Your task to perform on an android device: Go to CNN.com Image 0: 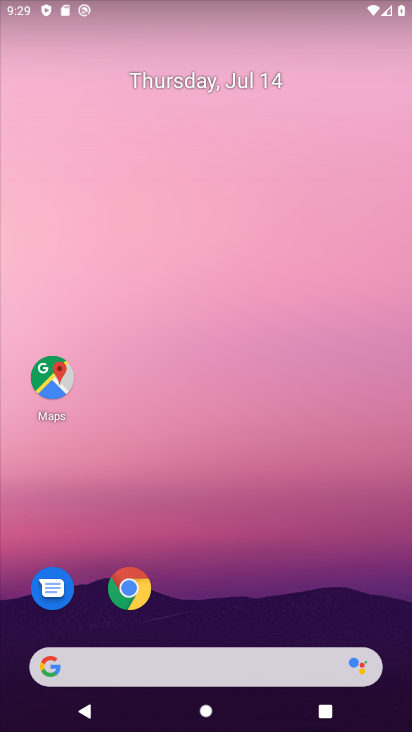
Step 0: click (170, 360)
Your task to perform on an android device: Go to CNN.com Image 1: 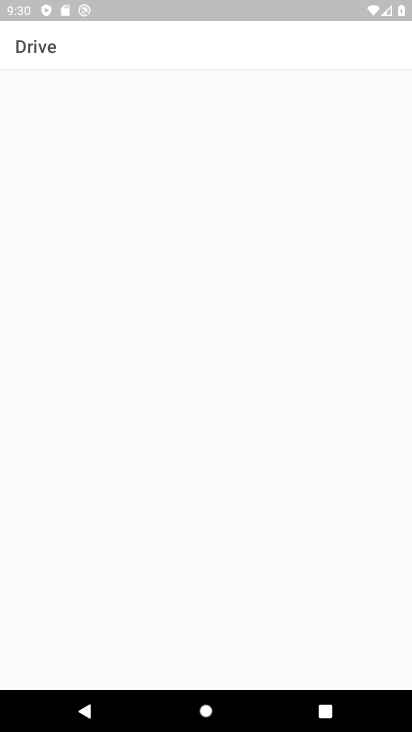
Step 1: press home button
Your task to perform on an android device: Go to CNN.com Image 2: 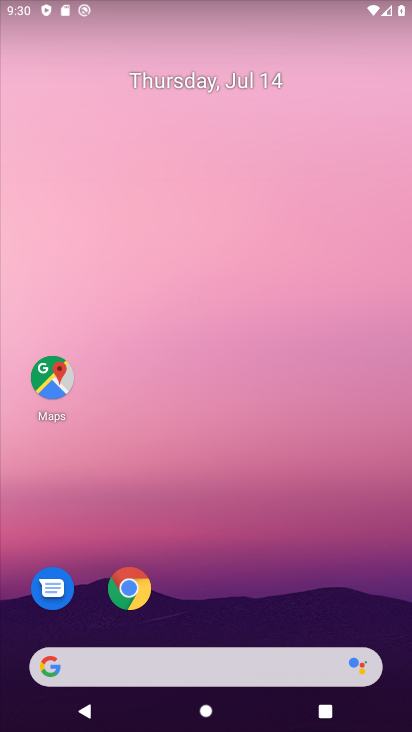
Step 2: drag from (151, 509) to (167, 406)
Your task to perform on an android device: Go to CNN.com Image 3: 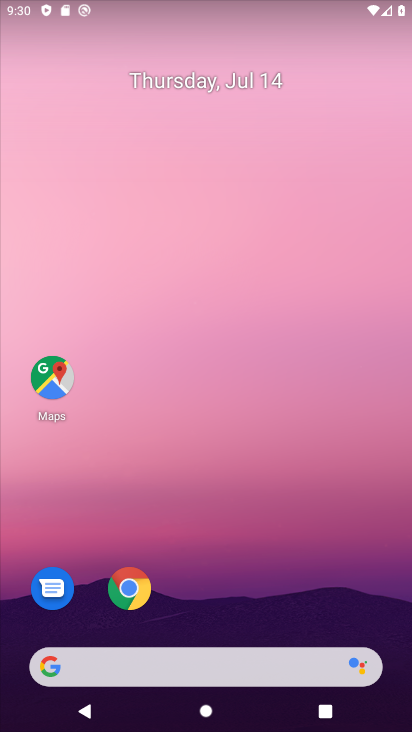
Step 3: drag from (103, 651) to (145, 360)
Your task to perform on an android device: Go to CNN.com Image 4: 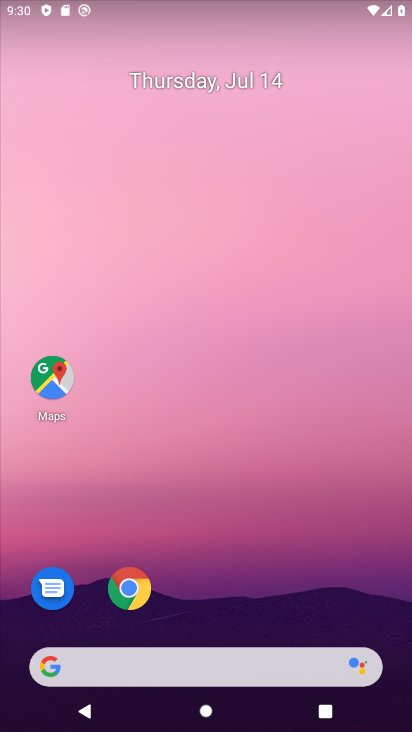
Step 4: drag from (249, 664) to (267, 181)
Your task to perform on an android device: Go to CNN.com Image 5: 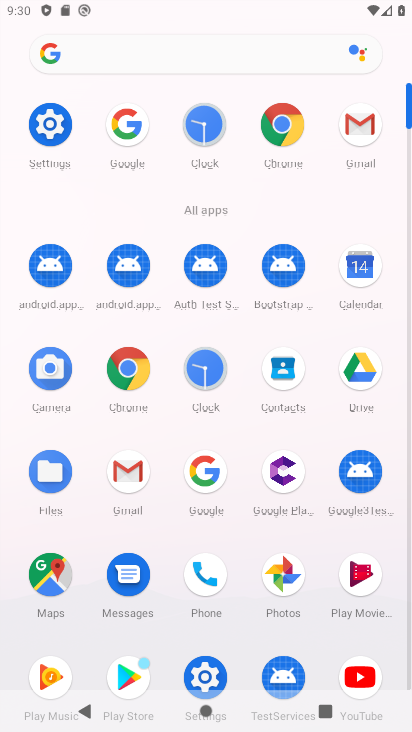
Step 5: click (197, 473)
Your task to perform on an android device: Go to CNN.com Image 6: 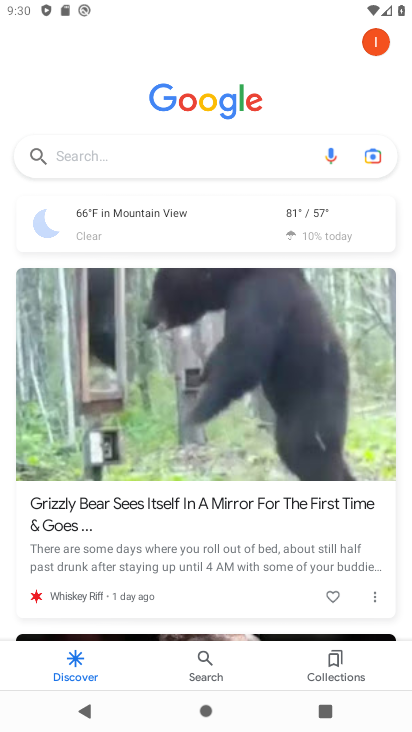
Step 6: click (98, 159)
Your task to perform on an android device: Go to CNN.com Image 7: 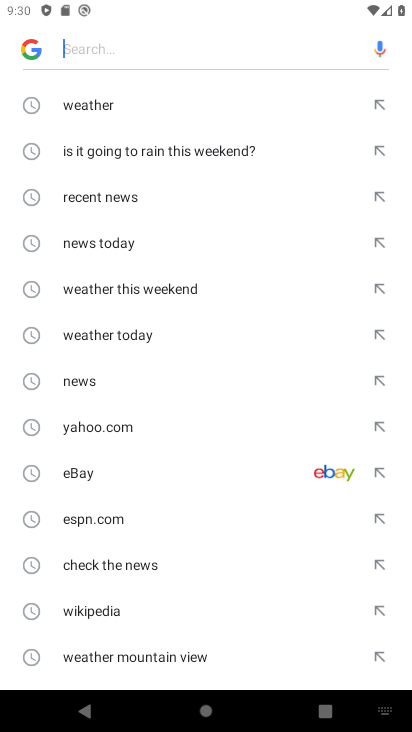
Step 7: drag from (107, 569) to (150, 213)
Your task to perform on an android device: Go to CNN.com Image 8: 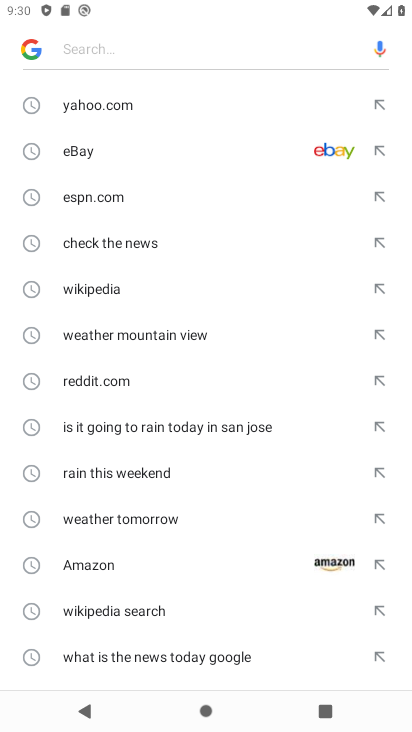
Step 8: drag from (93, 639) to (107, 293)
Your task to perform on an android device: Go to CNN.com Image 9: 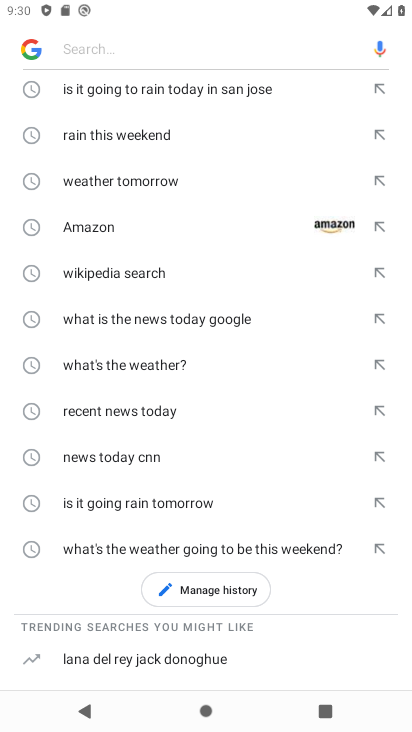
Step 9: drag from (151, 175) to (168, 367)
Your task to perform on an android device: Go to CNN.com Image 10: 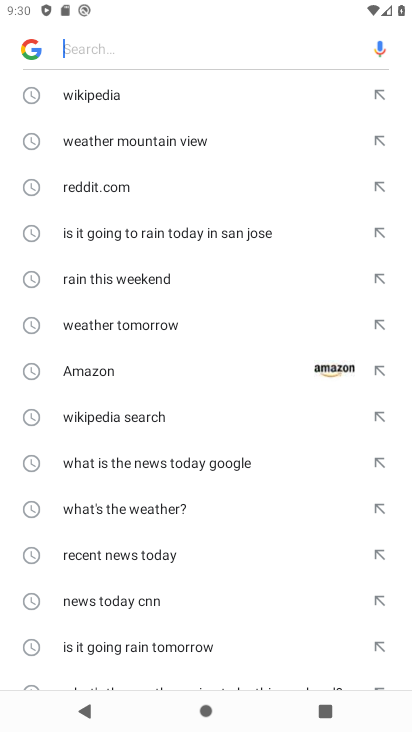
Step 10: drag from (137, 88) to (145, 238)
Your task to perform on an android device: Go to CNN.com Image 11: 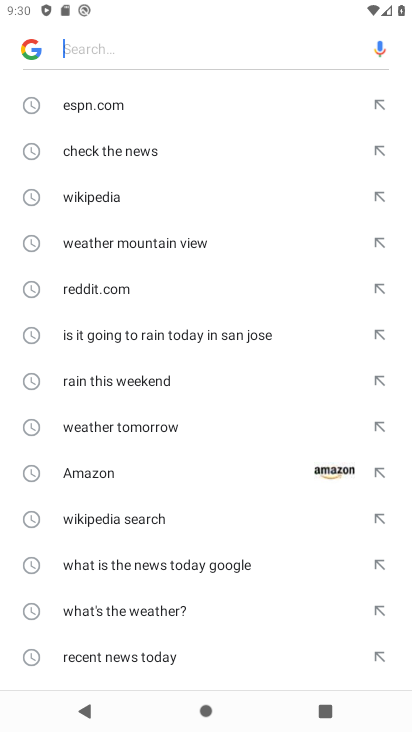
Step 11: type "cnn.com"
Your task to perform on an android device: Go to CNN.com Image 12: 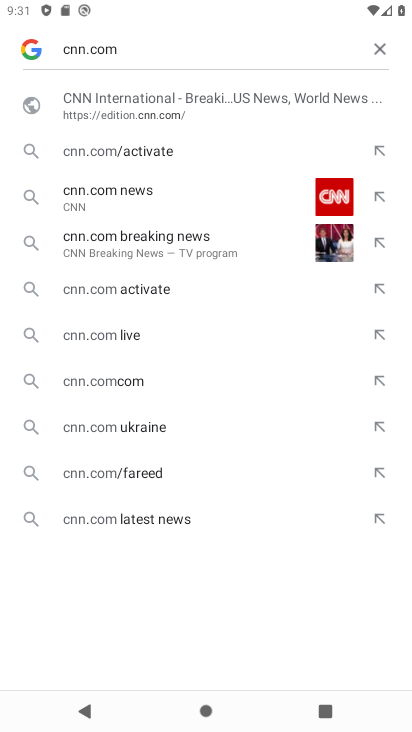
Step 12: click (116, 104)
Your task to perform on an android device: Go to CNN.com Image 13: 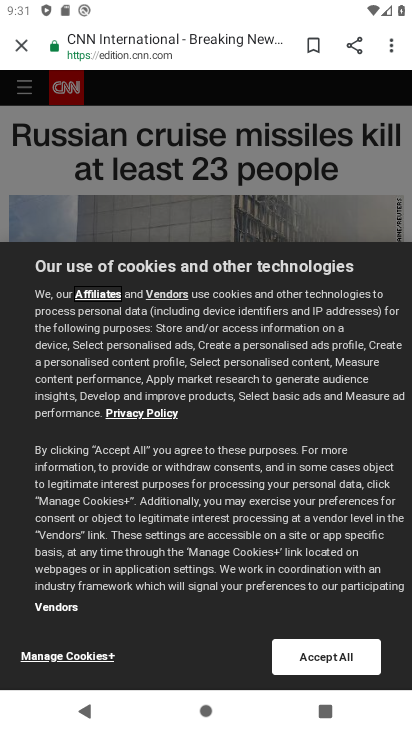
Step 13: task complete